Your task to perform on an android device: turn on location history Image 0: 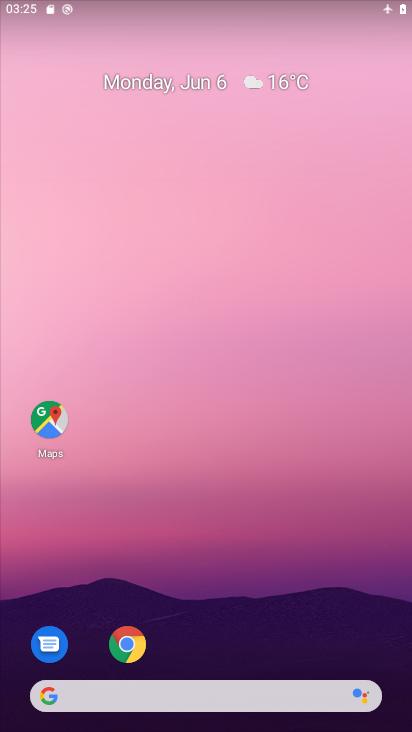
Step 0: drag from (231, 621) to (269, 21)
Your task to perform on an android device: turn on location history Image 1: 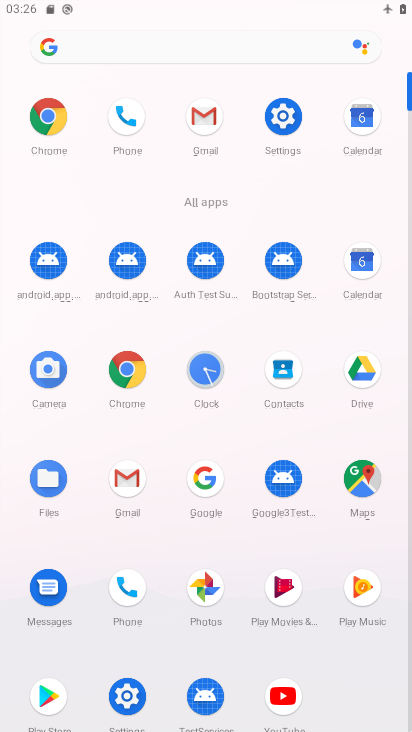
Step 1: click (301, 133)
Your task to perform on an android device: turn on location history Image 2: 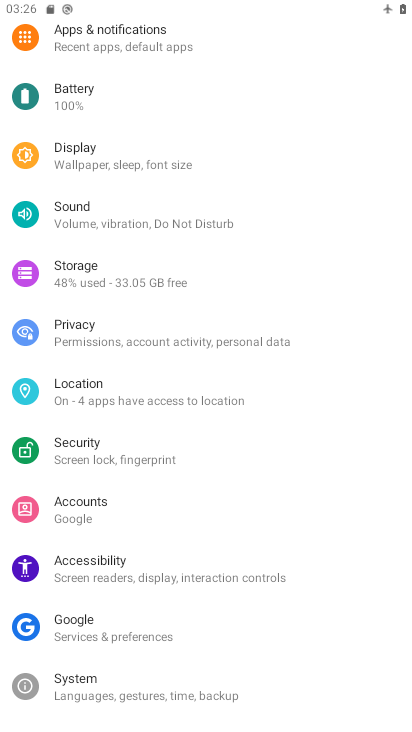
Step 2: click (109, 393)
Your task to perform on an android device: turn on location history Image 3: 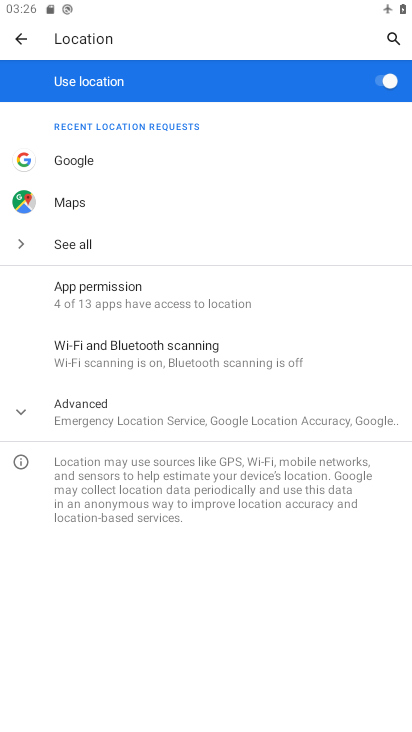
Step 3: click (154, 412)
Your task to perform on an android device: turn on location history Image 4: 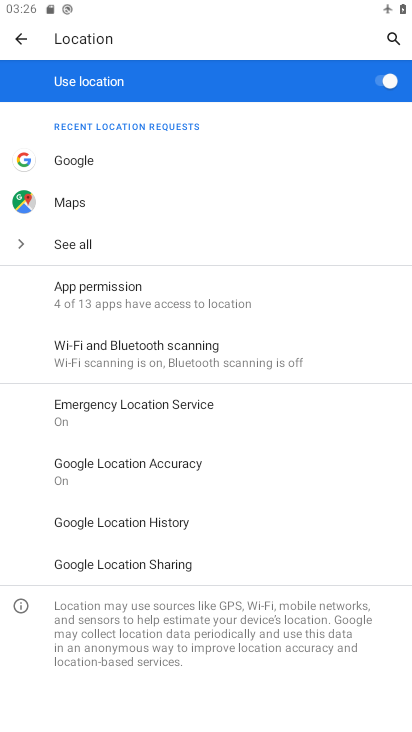
Step 4: click (147, 527)
Your task to perform on an android device: turn on location history Image 5: 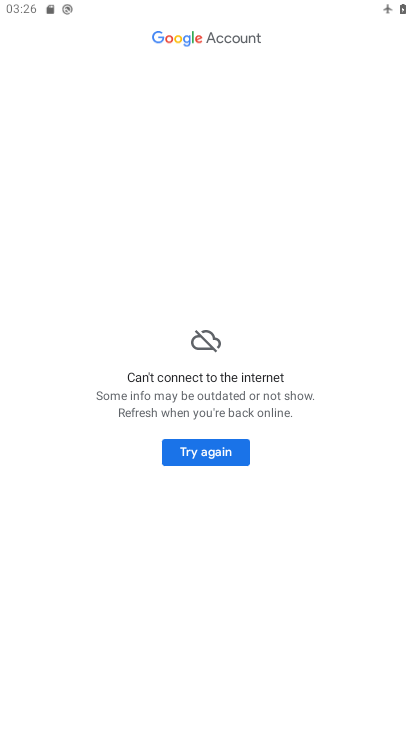
Step 5: task complete